Your task to perform on an android device: find snoozed emails in the gmail app Image 0: 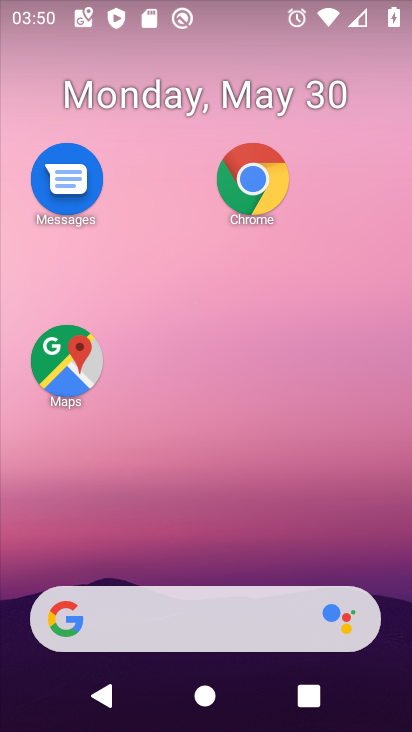
Step 0: drag from (223, 395) to (223, 62)
Your task to perform on an android device: find snoozed emails in the gmail app Image 1: 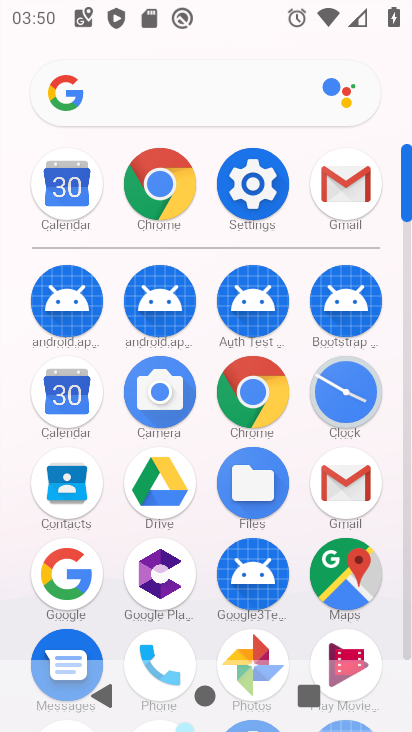
Step 1: click (366, 485)
Your task to perform on an android device: find snoozed emails in the gmail app Image 2: 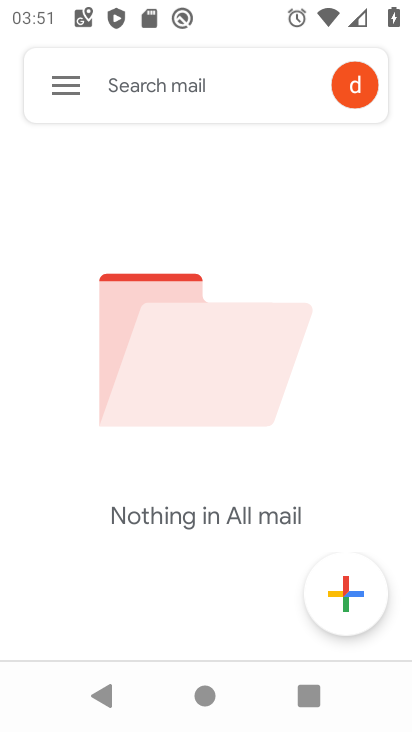
Step 2: click (52, 80)
Your task to perform on an android device: find snoozed emails in the gmail app Image 3: 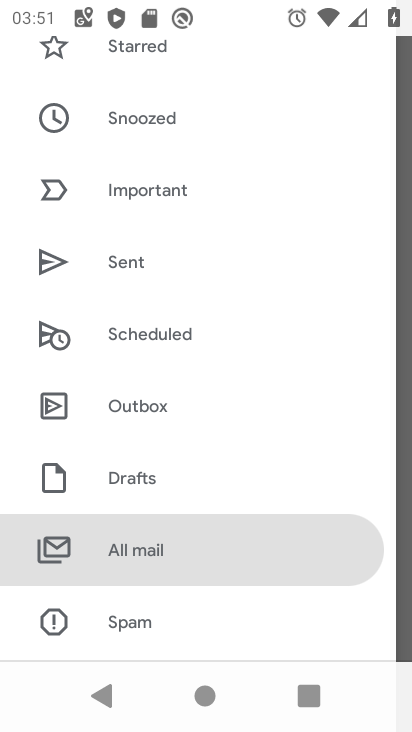
Step 3: click (153, 124)
Your task to perform on an android device: find snoozed emails in the gmail app Image 4: 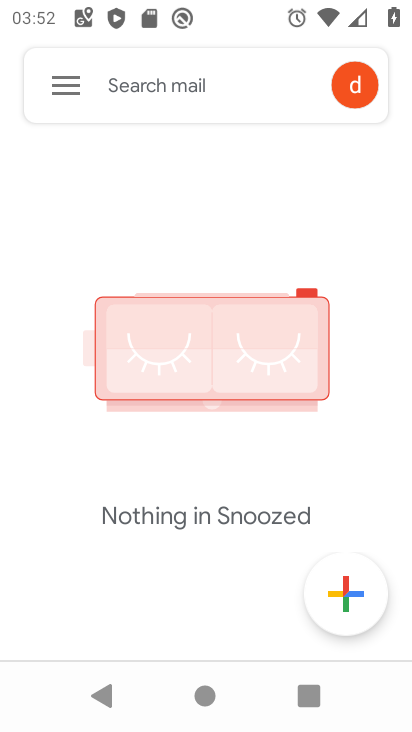
Step 4: task complete